Your task to perform on an android device: turn off picture-in-picture Image 0: 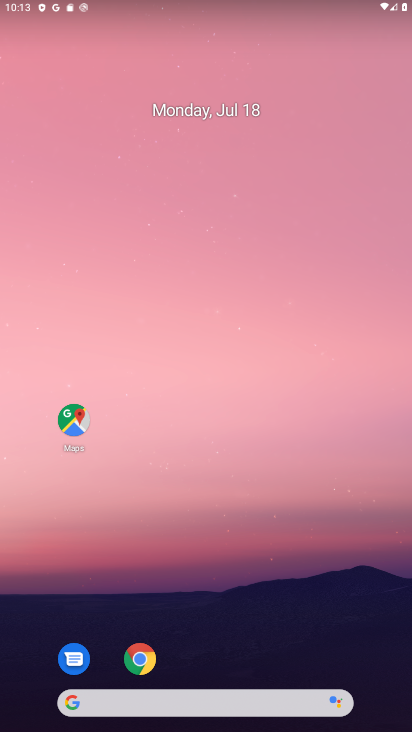
Step 0: click (147, 659)
Your task to perform on an android device: turn off picture-in-picture Image 1: 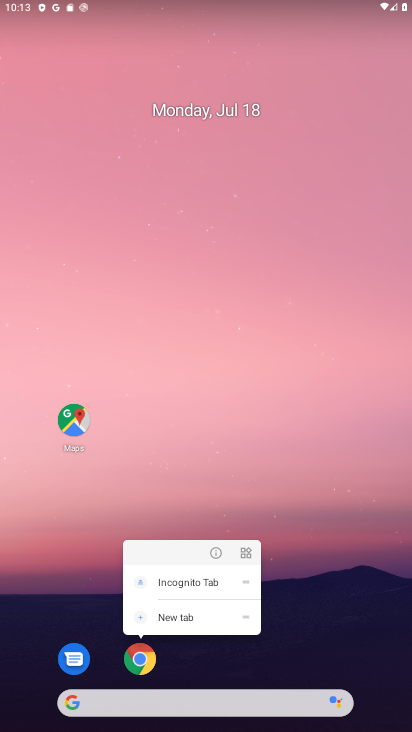
Step 1: click (219, 553)
Your task to perform on an android device: turn off picture-in-picture Image 2: 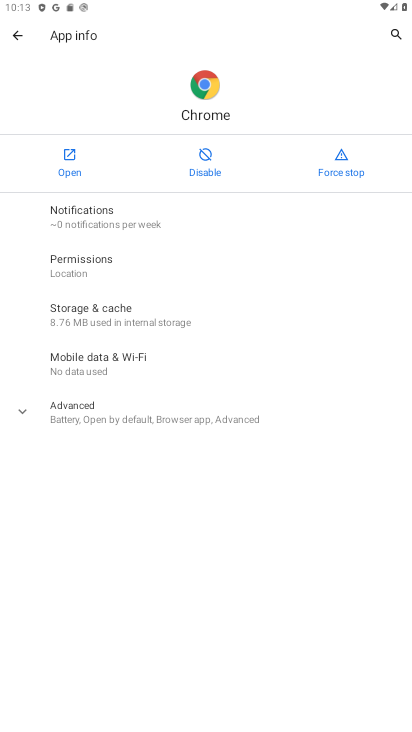
Step 2: click (119, 419)
Your task to perform on an android device: turn off picture-in-picture Image 3: 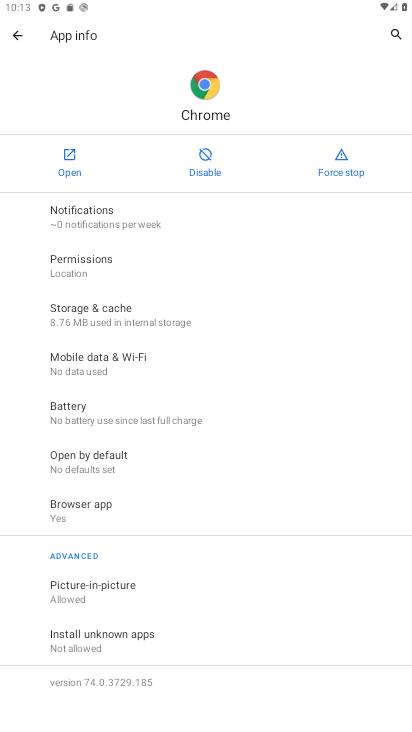
Step 3: click (120, 592)
Your task to perform on an android device: turn off picture-in-picture Image 4: 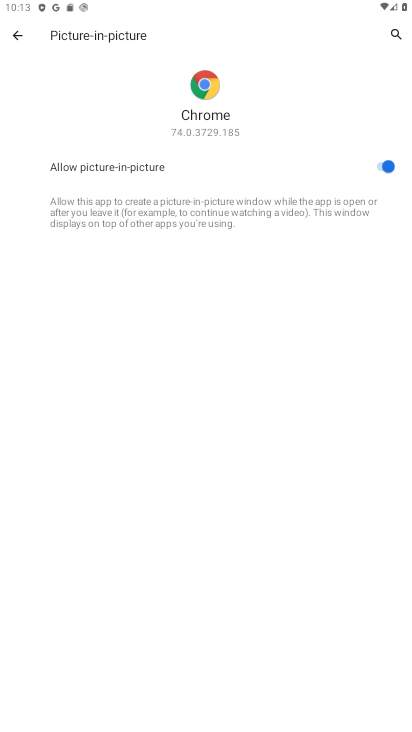
Step 4: click (362, 159)
Your task to perform on an android device: turn off picture-in-picture Image 5: 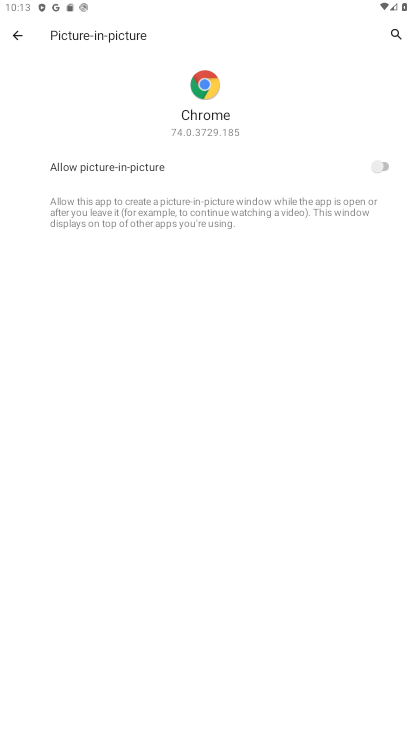
Step 5: task complete